Your task to perform on an android device: check google app version Image 0: 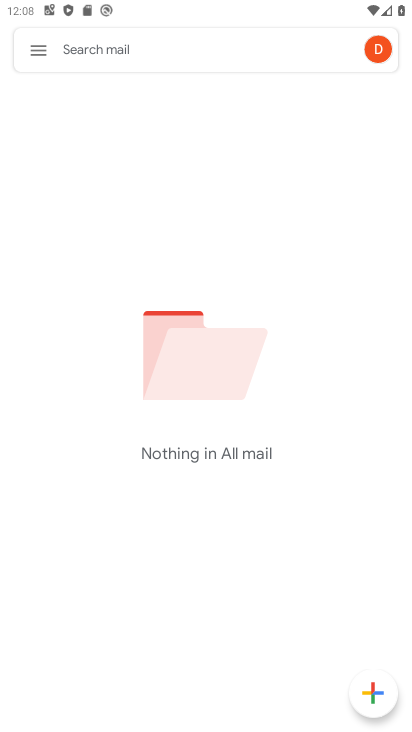
Step 0: press home button
Your task to perform on an android device: check google app version Image 1: 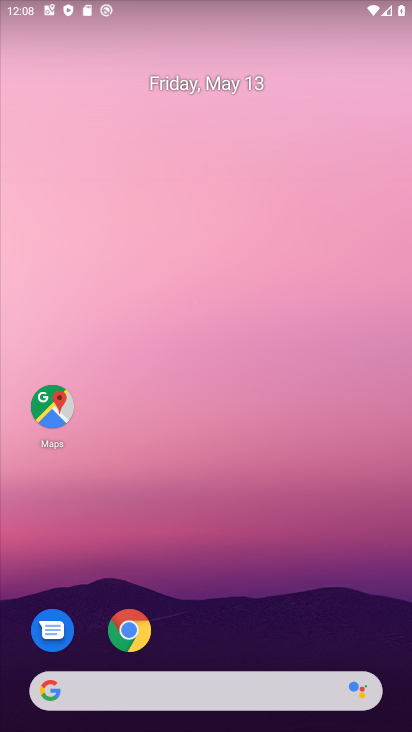
Step 1: drag from (356, 596) to (317, 153)
Your task to perform on an android device: check google app version Image 2: 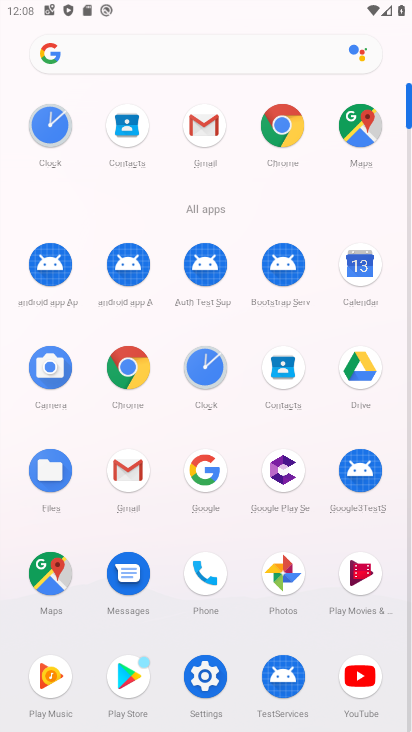
Step 2: click (202, 478)
Your task to perform on an android device: check google app version Image 3: 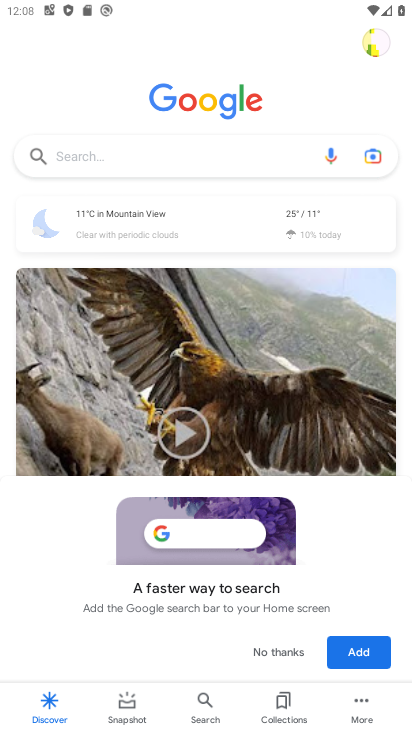
Step 3: click (366, 698)
Your task to perform on an android device: check google app version Image 4: 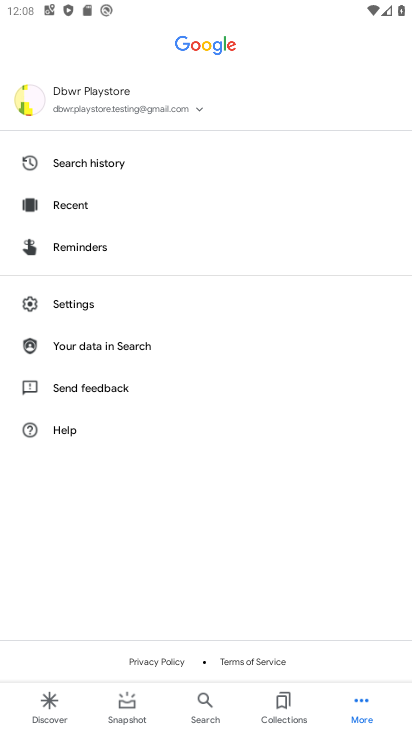
Step 4: click (94, 304)
Your task to perform on an android device: check google app version Image 5: 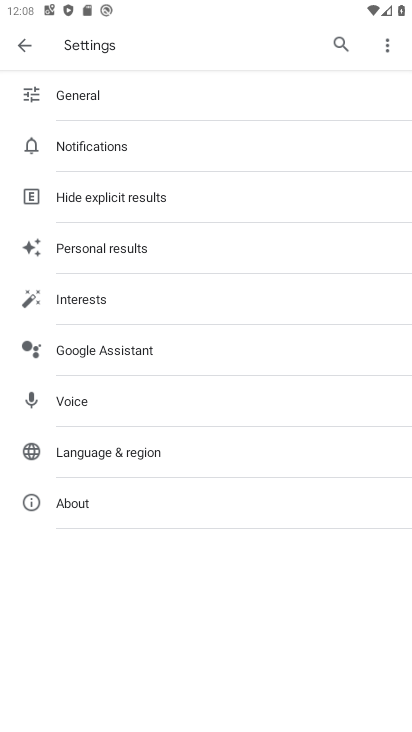
Step 5: click (95, 517)
Your task to perform on an android device: check google app version Image 6: 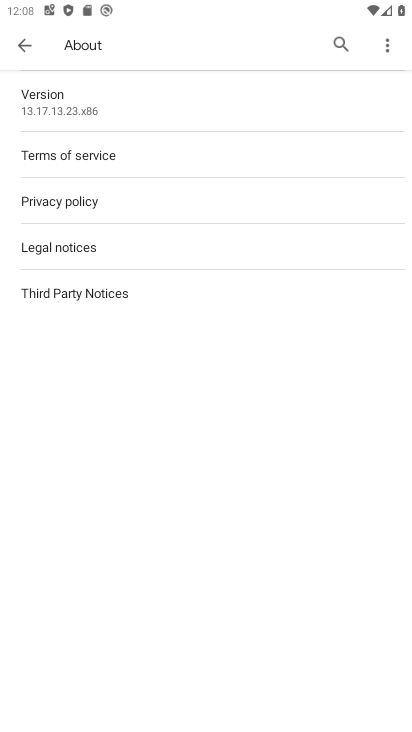
Step 6: task complete